Your task to perform on an android device: turn on translation in the chrome app Image 0: 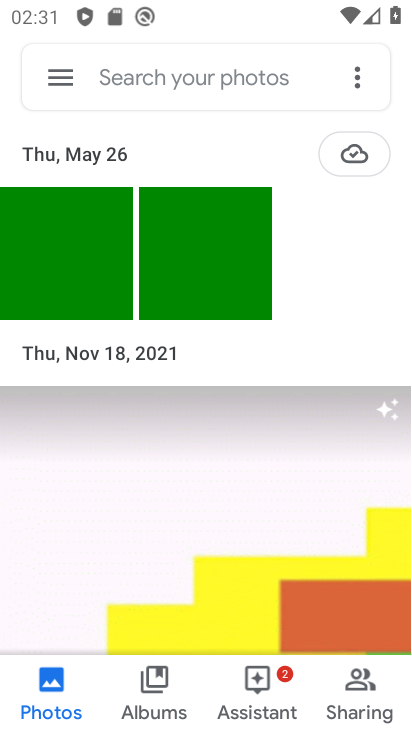
Step 0: press home button
Your task to perform on an android device: turn on translation in the chrome app Image 1: 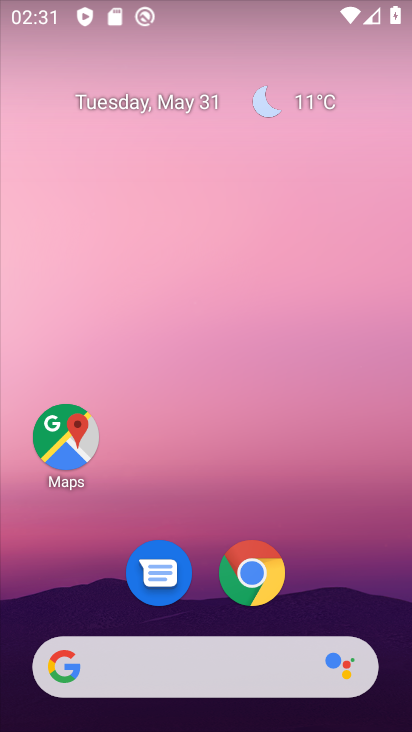
Step 1: drag from (342, 604) to (260, 134)
Your task to perform on an android device: turn on translation in the chrome app Image 2: 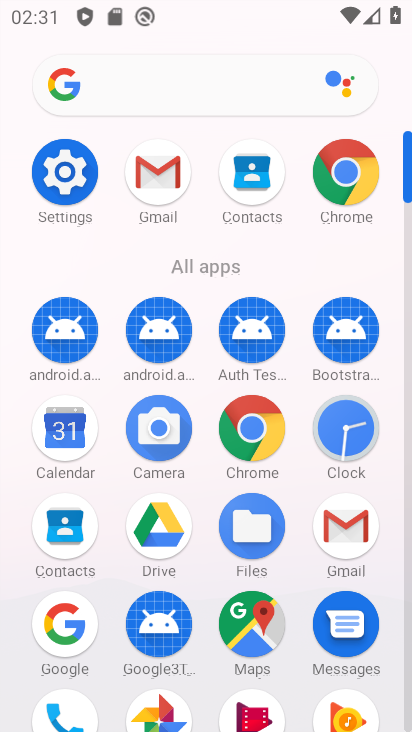
Step 2: click (344, 164)
Your task to perform on an android device: turn on translation in the chrome app Image 3: 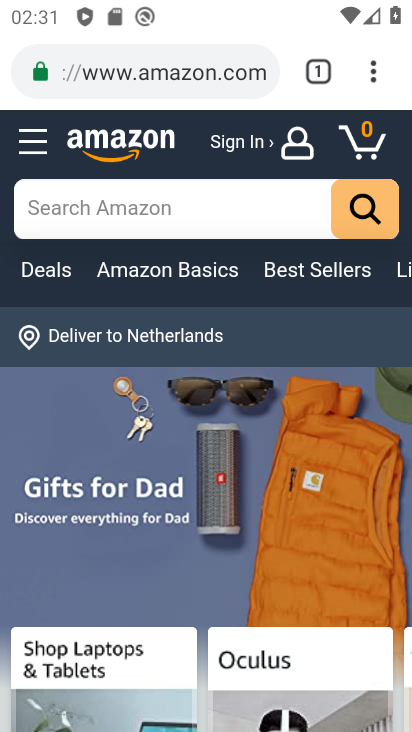
Step 3: click (376, 79)
Your task to perform on an android device: turn on translation in the chrome app Image 4: 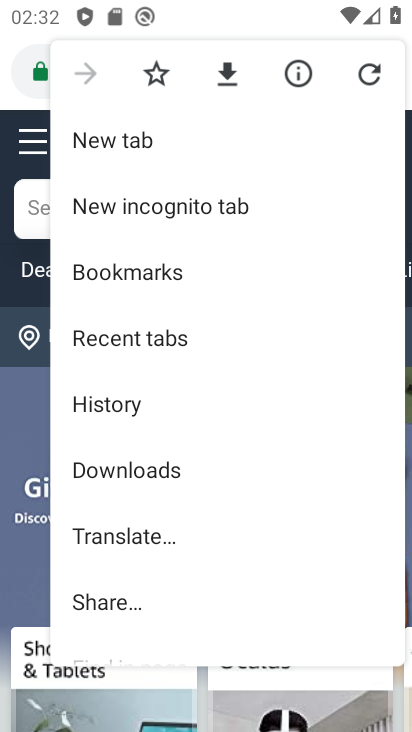
Step 4: drag from (166, 563) to (156, 186)
Your task to perform on an android device: turn on translation in the chrome app Image 5: 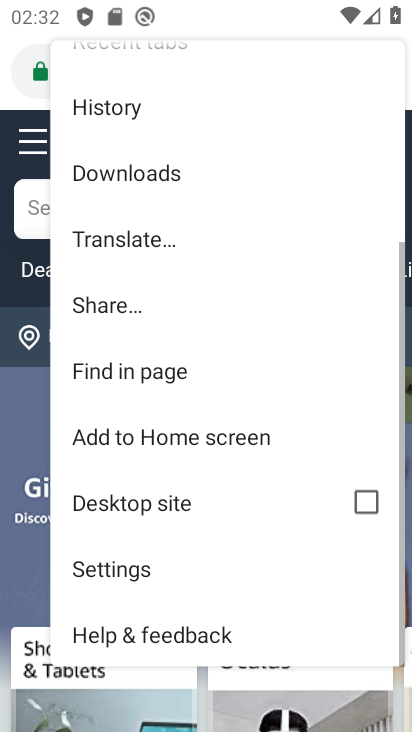
Step 5: click (172, 554)
Your task to perform on an android device: turn on translation in the chrome app Image 6: 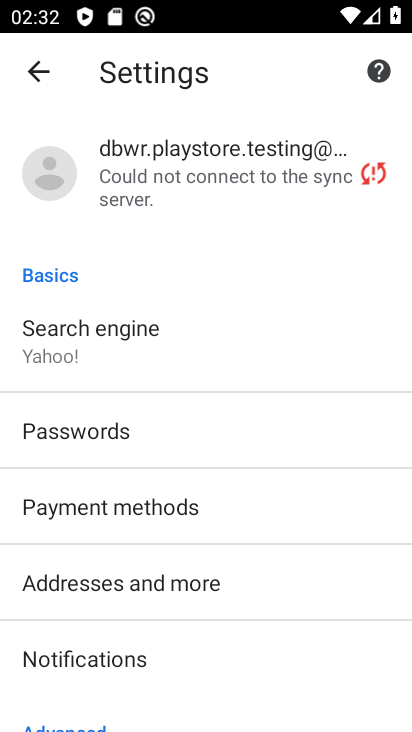
Step 6: drag from (192, 651) to (132, 246)
Your task to perform on an android device: turn on translation in the chrome app Image 7: 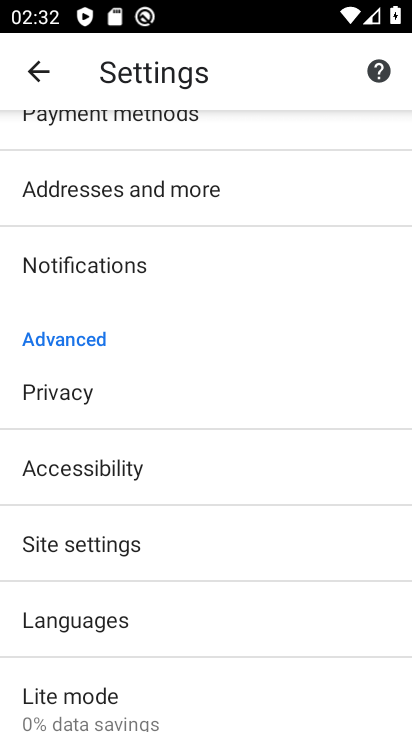
Step 7: click (147, 606)
Your task to perform on an android device: turn on translation in the chrome app Image 8: 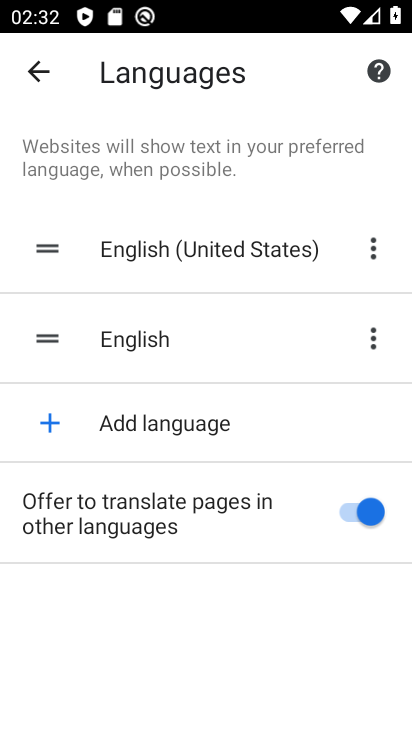
Step 8: task complete